Your task to perform on an android device: Go to ESPN.com Image 0: 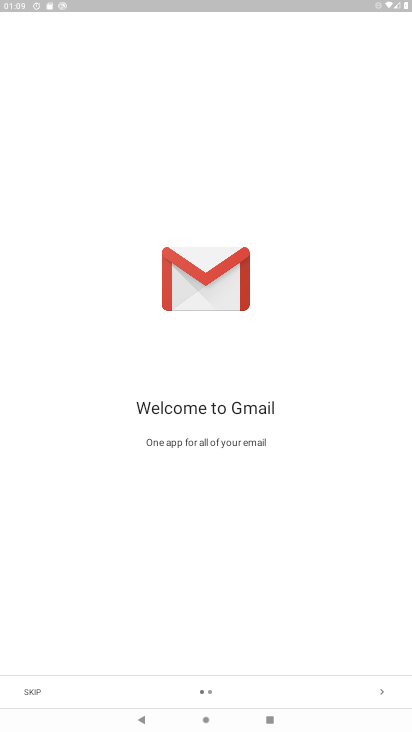
Step 0: press home button
Your task to perform on an android device: Go to ESPN.com Image 1: 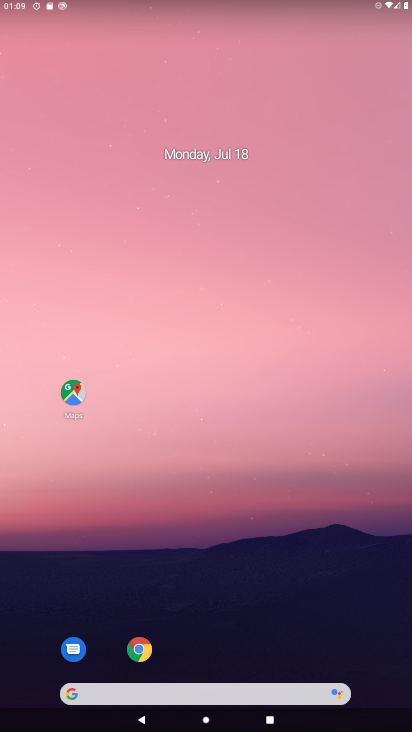
Step 1: click (137, 690)
Your task to perform on an android device: Go to ESPN.com Image 2: 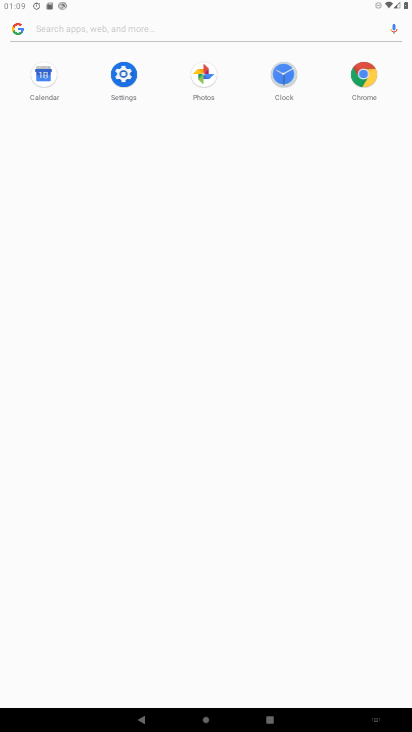
Step 2: type " ESPN.com"
Your task to perform on an android device: Go to ESPN.com Image 3: 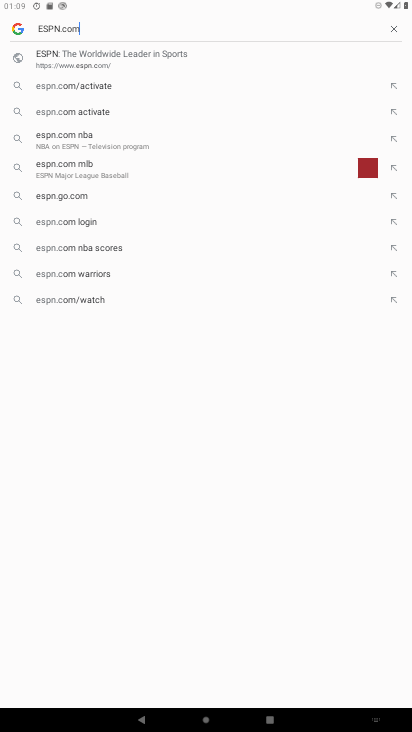
Step 3: type ""
Your task to perform on an android device: Go to ESPN.com Image 4: 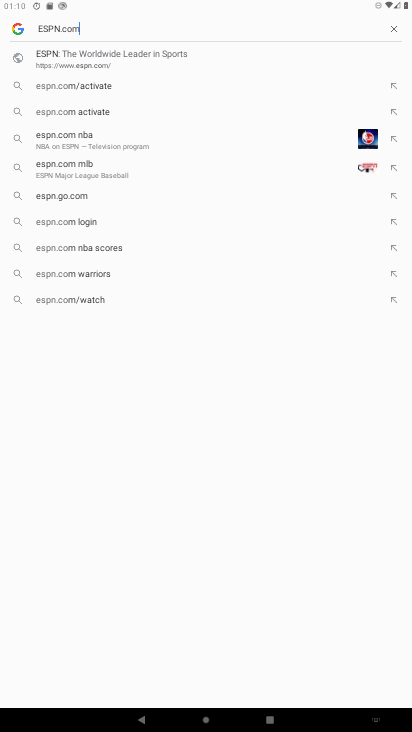
Step 4: click (53, 51)
Your task to perform on an android device: Go to ESPN.com Image 5: 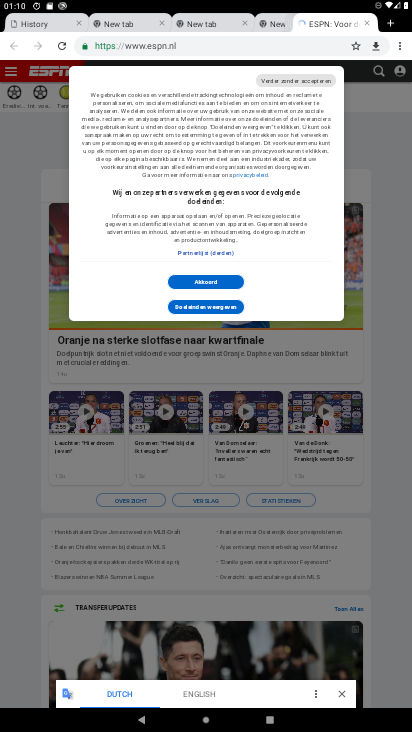
Step 5: task complete